Your task to perform on an android device: turn off wifi Image 0: 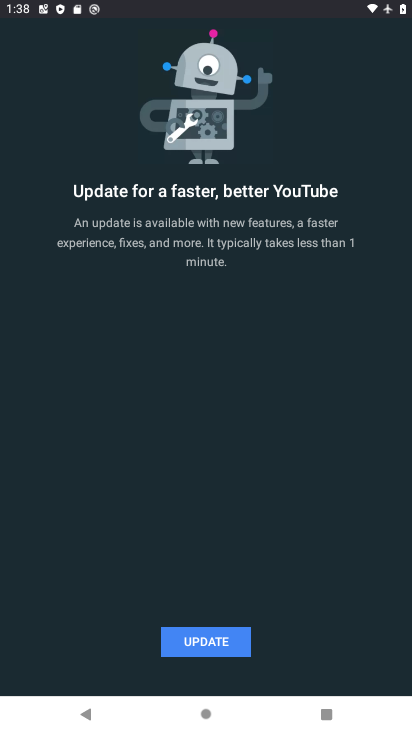
Step 0: press home button
Your task to perform on an android device: turn off wifi Image 1: 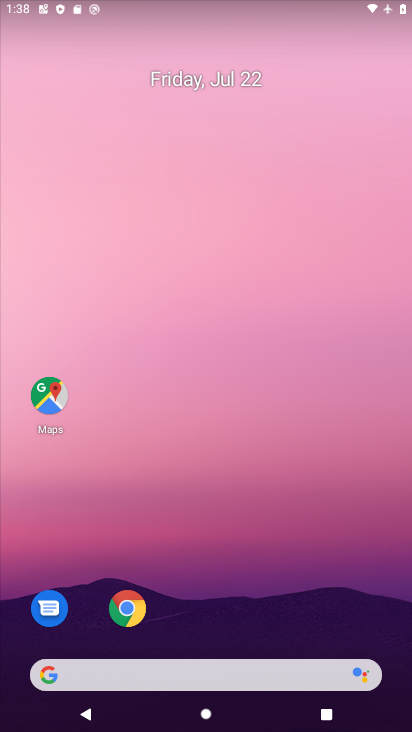
Step 1: drag from (237, 721) to (225, 484)
Your task to perform on an android device: turn off wifi Image 2: 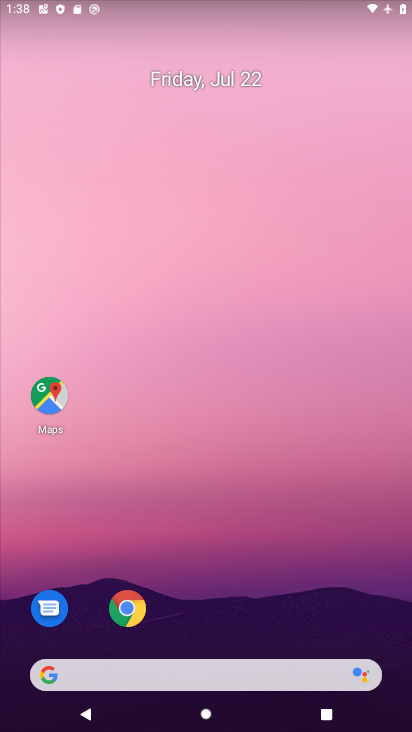
Step 2: drag from (232, 729) to (240, 198)
Your task to perform on an android device: turn off wifi Image 3: 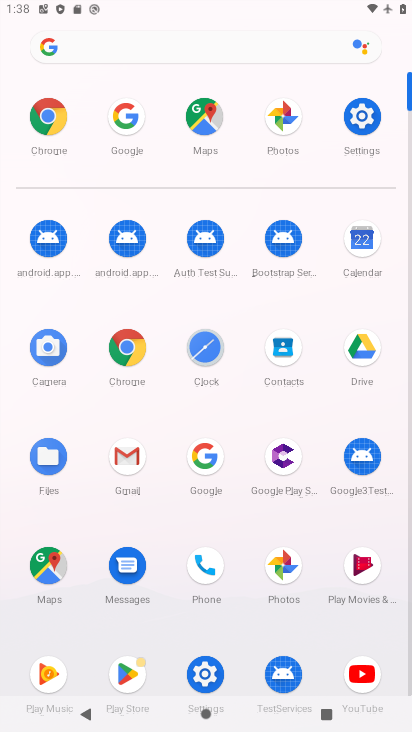
Step 3: click (355, 122)
Your task to perform on an android device: turn off wifi Image 4: 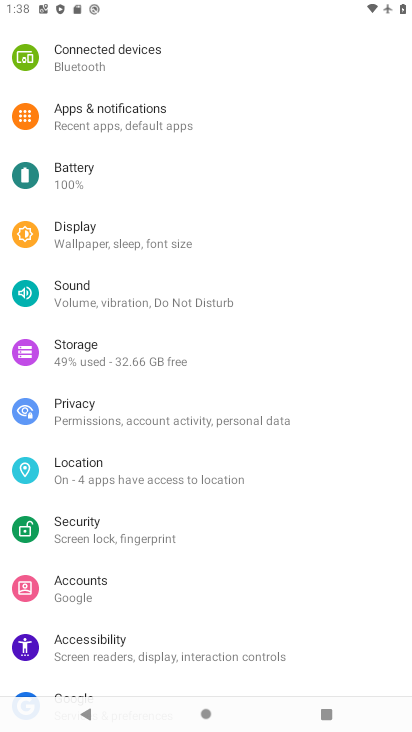
Step 4: drag from (120, 131) to (140, 621)
Your task to perform on an android device: turn off wifi Image 5: 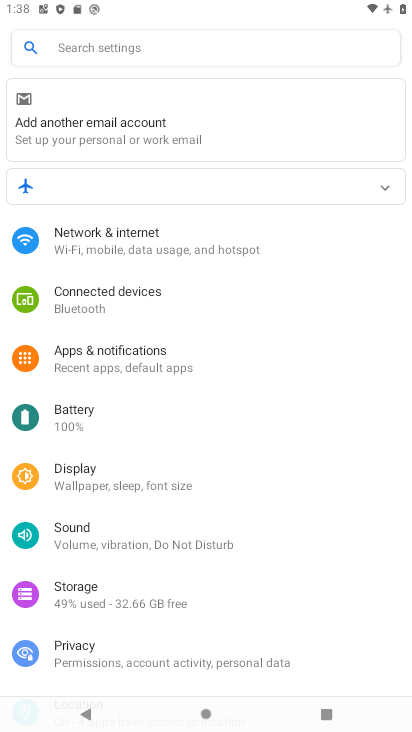
Step 5: click (84, 235)
Your task to perform on an android device: turn off wifi Image 6: 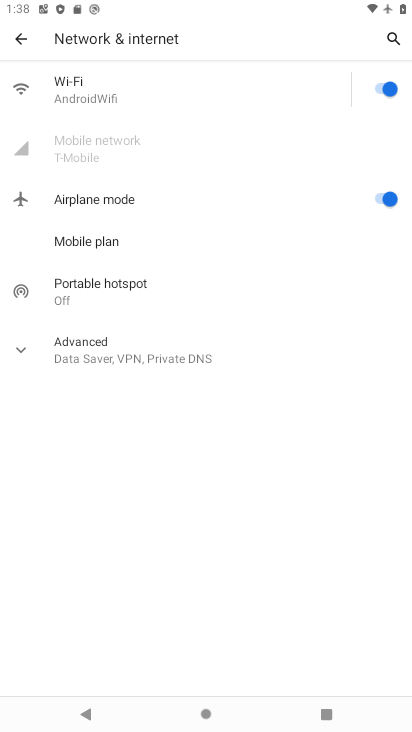
Step 6: click (384, 90)
Your task to perform on an android device: turn off wifi Image 7: 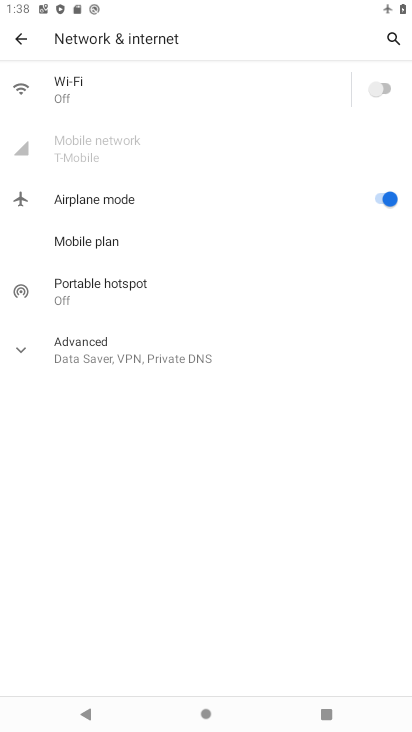
Step 7: task complete